Your task to perform on an android device: turn on notifications settings in the gmail app Image 0: 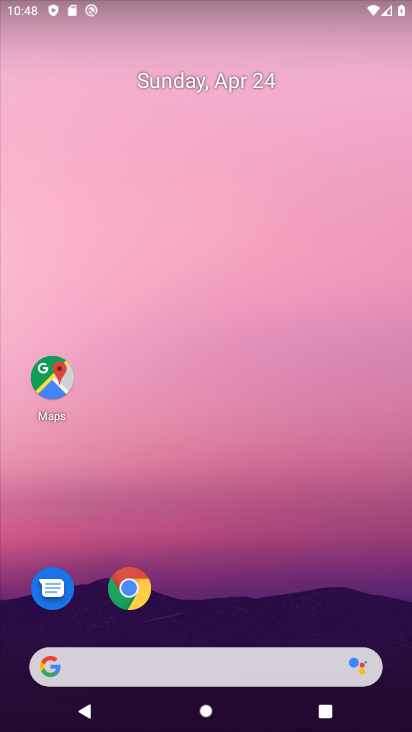
Step 0: drag from (237, 548) to (252, 68)
Your task to perform on an android device: turn on notifications settings in the gmail app Image 1: 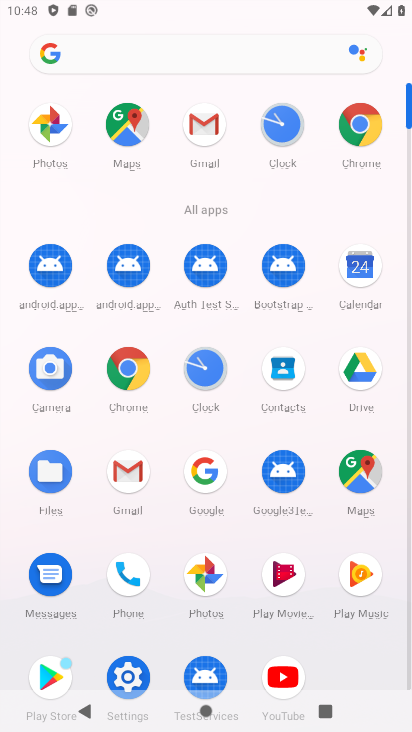
Step 1: click (129, 471)
Your task to perform on an android device: turn on notifications settings in the gmail app Image 2: 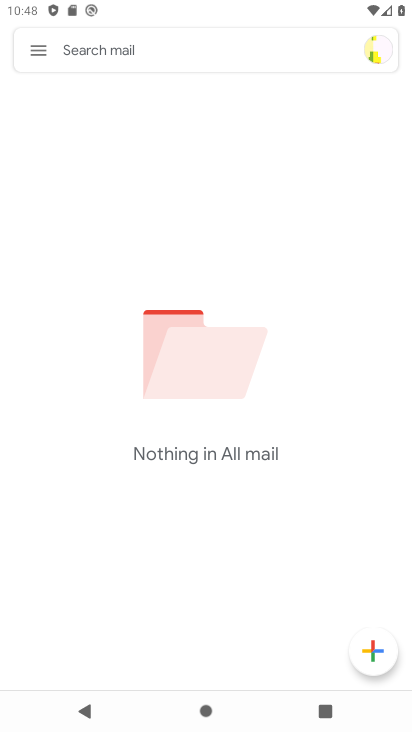
Step 2: click (38, 49)
Your task to perform on an android device: turn on notifications settings in the gmail app Image 3: 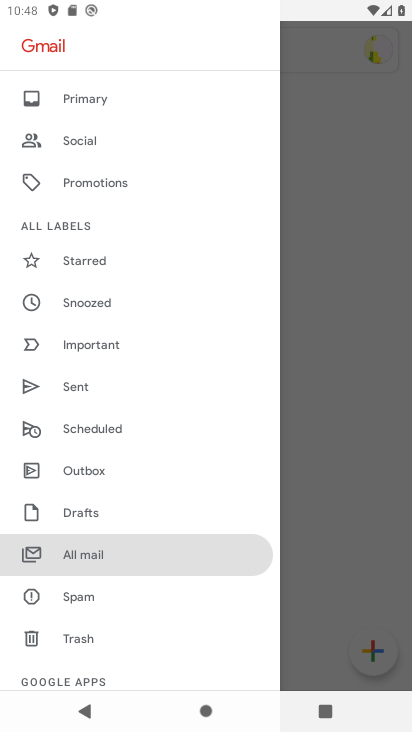
Step 3: drag from (83, 643) to (164, 164)
Your task to perform on an android device: turn on notifications settings in the gmail app Image 4: 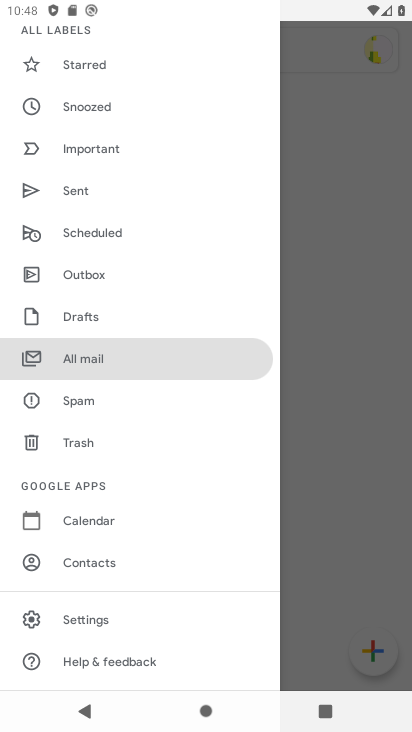
Step 4: click (82, 631)
Your task to perform on an android device: turn on notifications settings in the gmail app Image 5: 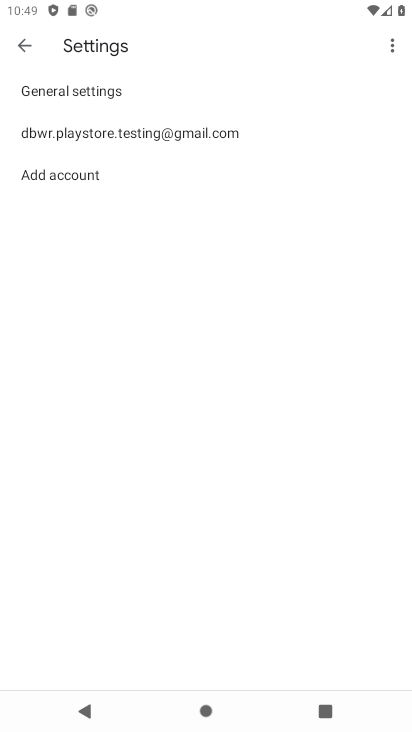
Step 5: click (155, 138)
Your task to perform on an android device: turn on notifications settings in the gmail app Image 6: 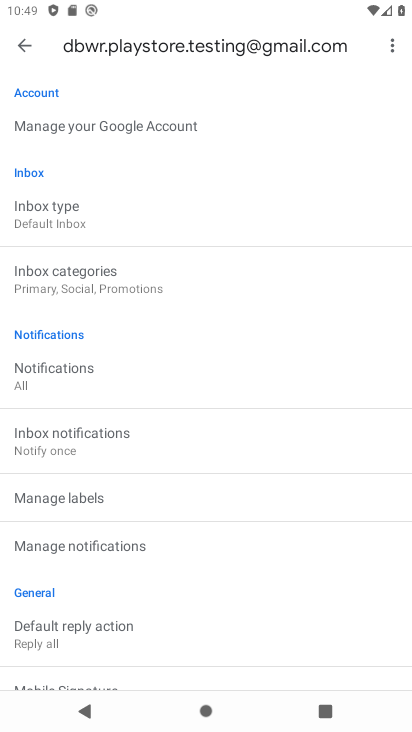
Step 6: drag from (98, 534) to (133, 308)
Your task to perform on an android device: turn on notifications settings in the gmail app Image 7: 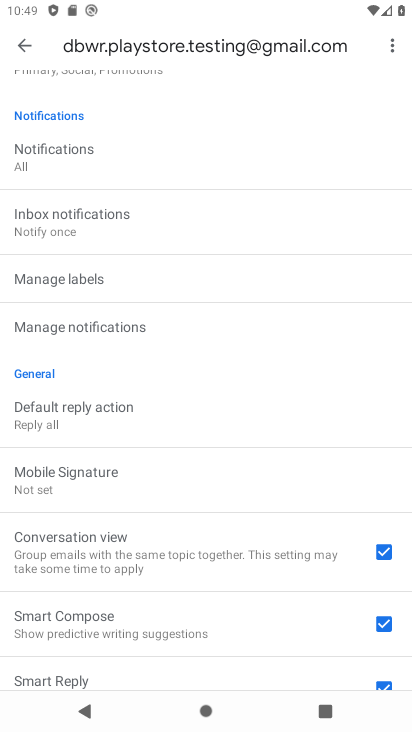
Step 7: click (134, 331)
Your task to perform on an android device: turn on notifications settings in the gmail app Image 8: 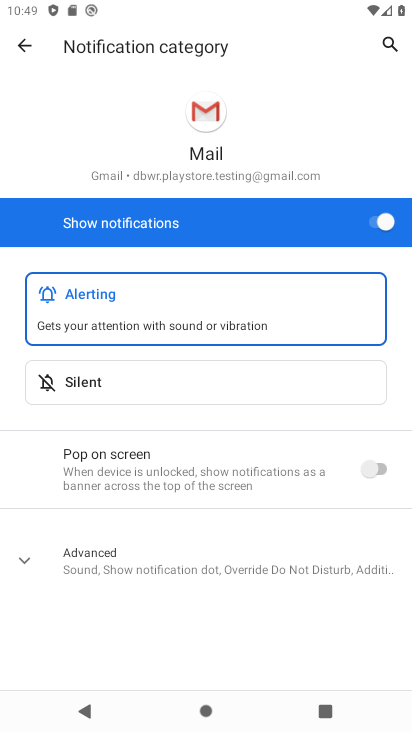
Step 8: task complete